Your task to perform on an android device: Clear the cart on bestbuy. Search for lenovo thinkpad on bestbuy, select the first entry, add it to the cart, then select checkout. Image 0: 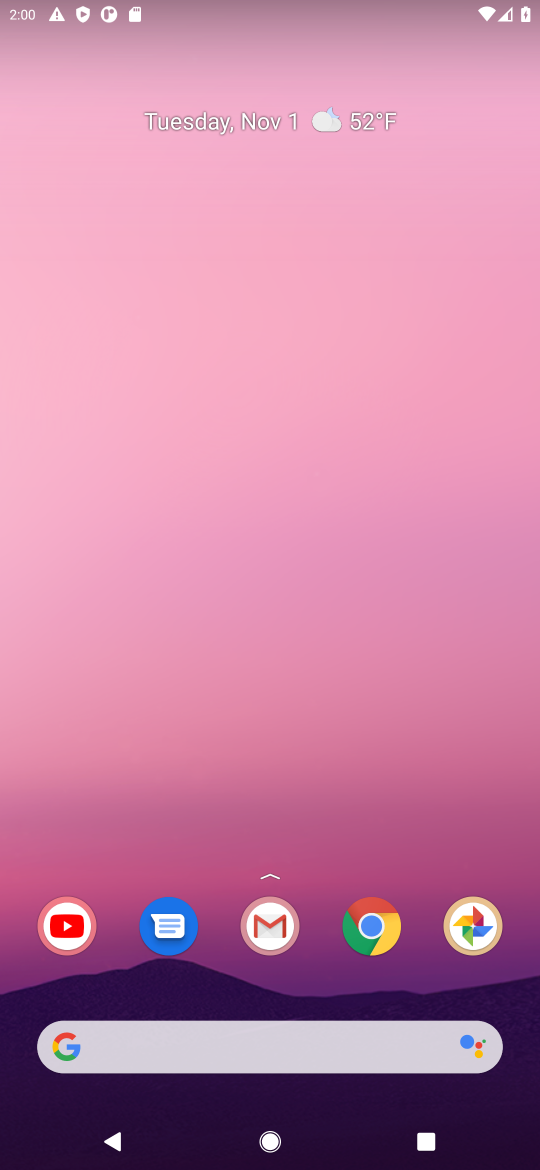
Step 0: click (367, 937)
Your task to perform on an android device: Clear the cart on bestbuy. Search for lenovo thinkpad on bestbuy, select the first entry, add it to the cart, then select checkout. Image 1: 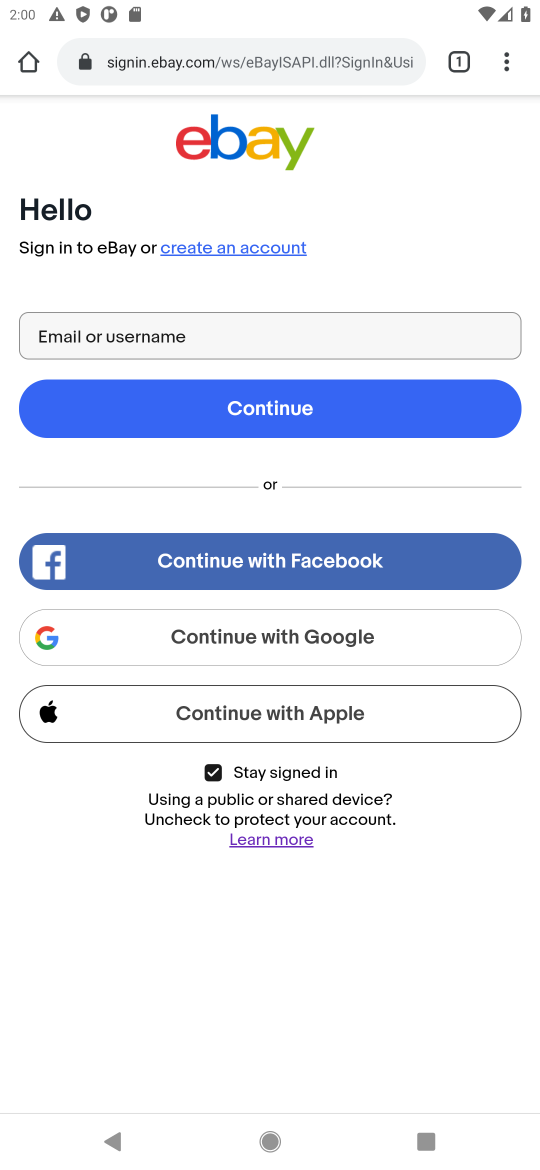
Step 1: click (235, 68)
Your task to perform on an android device: Clear the cart on bestbuy. Search for lenovo thinkpad on bestbuy, select the first entry, add it to the cart, then select checkout. Image 2: 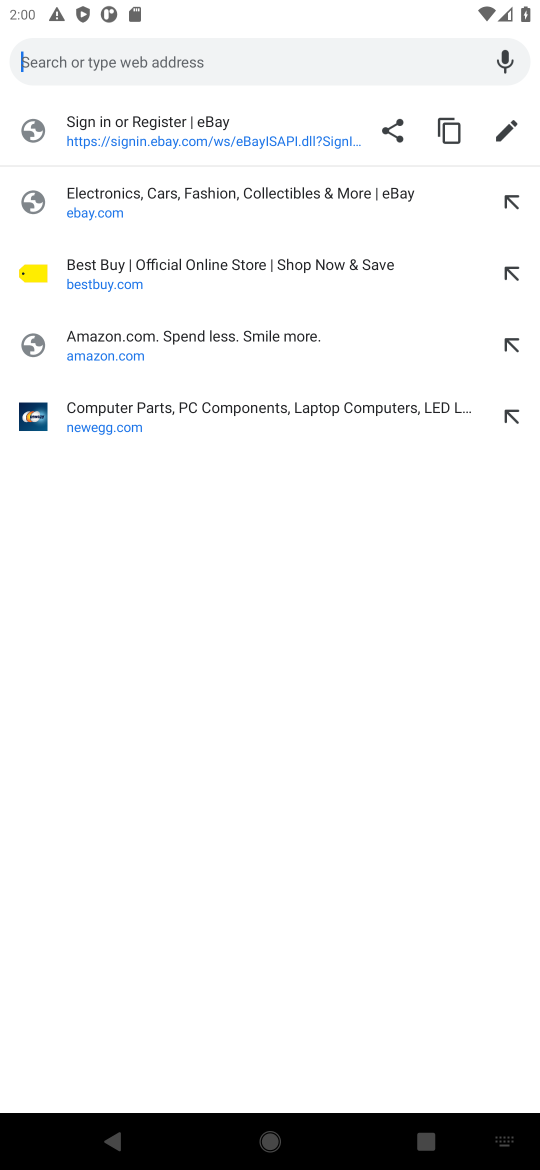
Step 2: type "bestbuy"
Your task to perform on an android device: Clear the cart on bestbuy. Search for lenovo thinkpad on bestbuy, select the first entry, add it to the cart, then select checkout. Image 3: 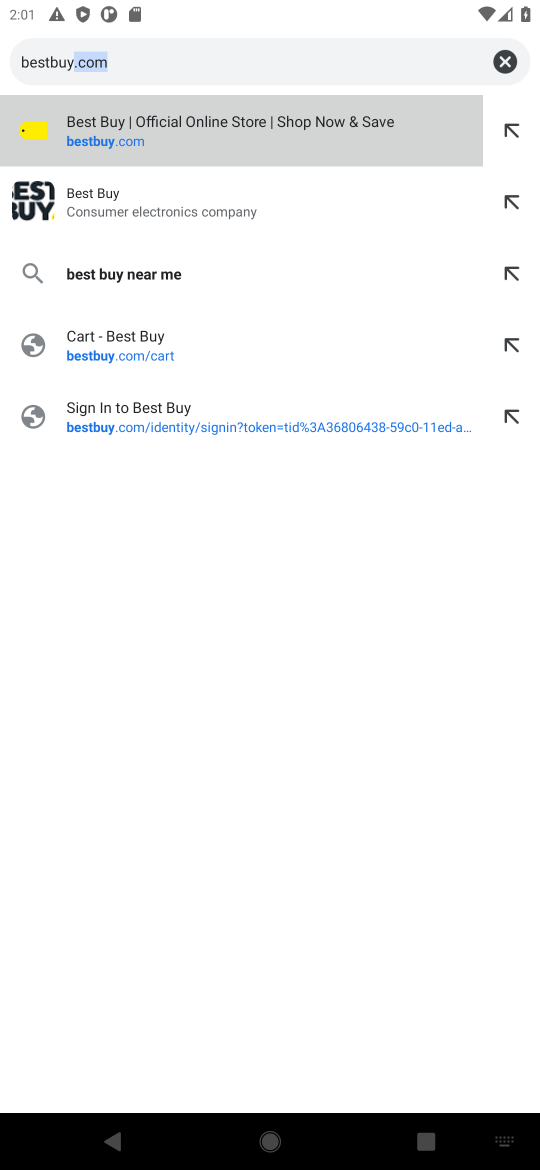
Step 3: press enter
Your task to perform on an android device: Clear the cart on bestbuy. Search for lenovo thinkpad on bestbuy, select the first entry, add it to the cart, then select checkout. Image 4: 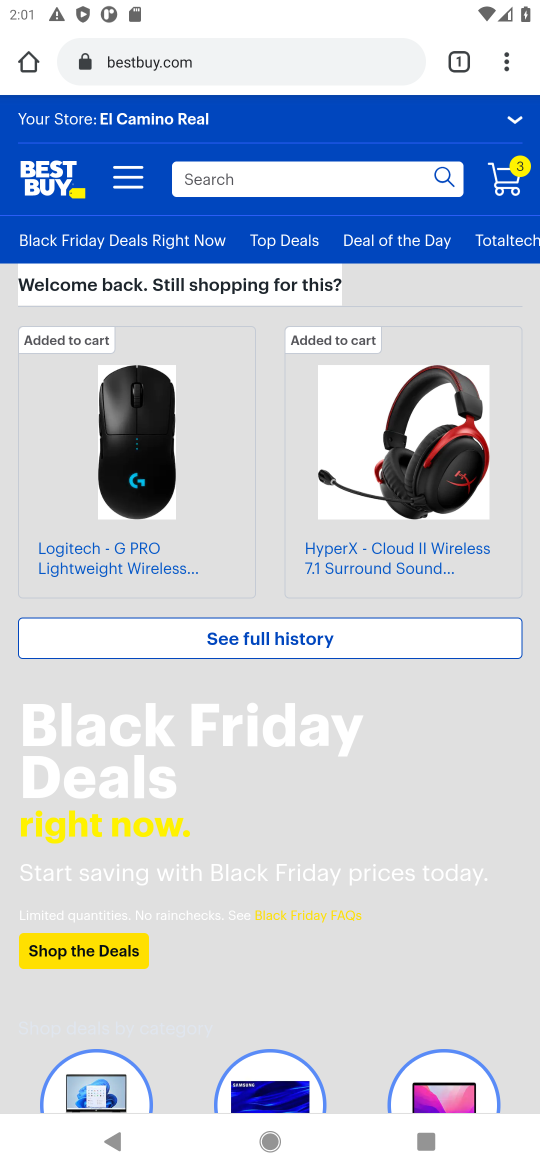
Step 4: click (289, 182)
Your task to perform on an android device: Clear the cart on bestbuy. Search for lenovo thinkpad on bestbuy, select the first entry, add it to the cart, then select checkout. Image 5: 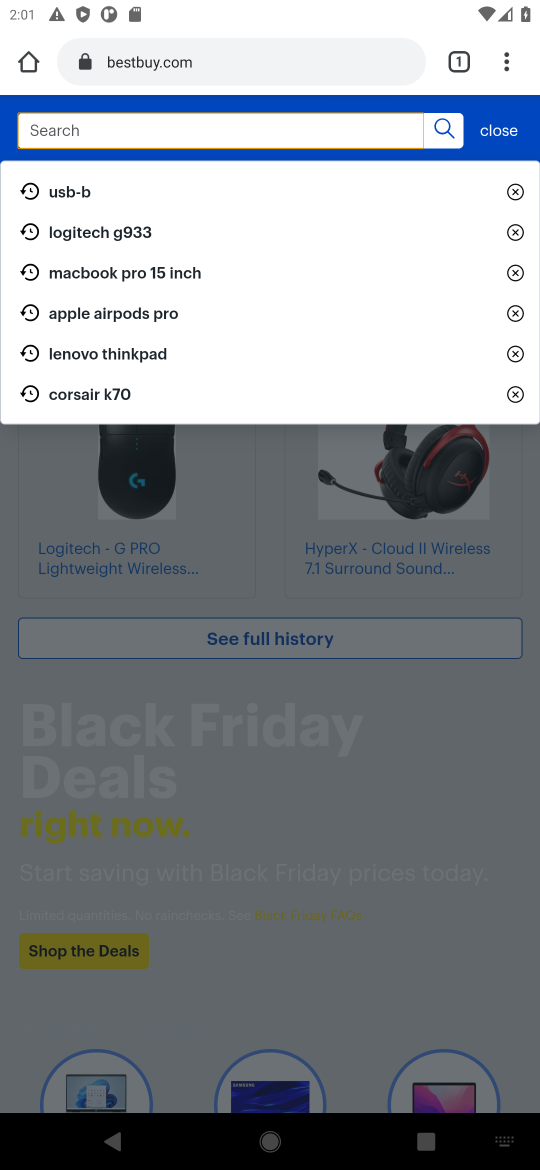
Step 5: click (495, 128)
Your task to perform on an android device: Clear the cart on bestbuy. Search for lenovo thinkpad on bestbuy, select the first entry, add it to the cart, then select checkout. Image 6: 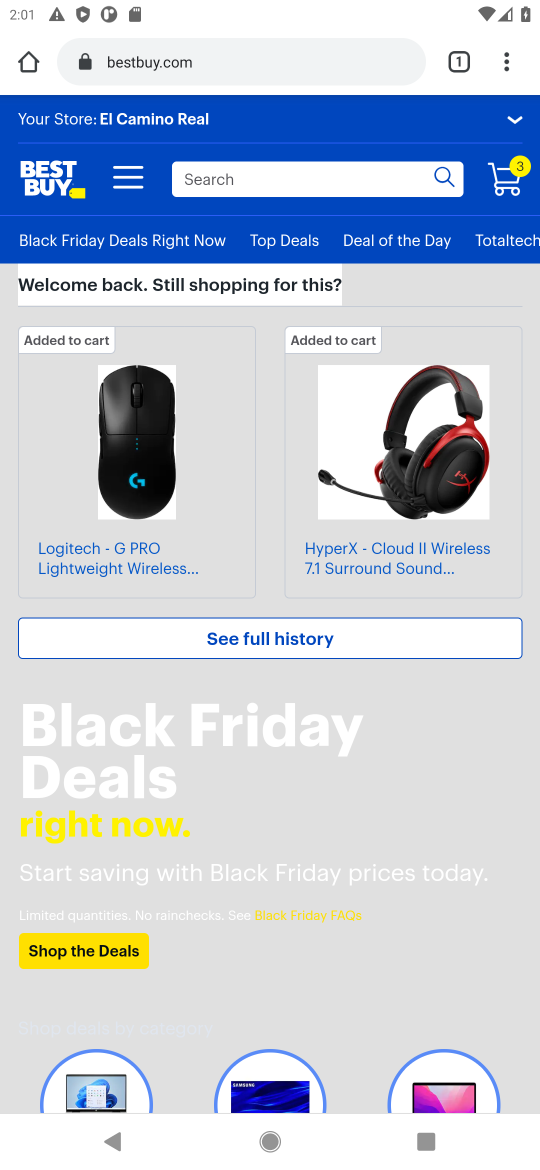
Step 6: click (511, 175)
Your task to perform on an android device: Clear the cart on bestbuy. Search for lenovo thinkpad on bestbuy, select the first entry, add it to the cart, then select checkout. Image 7: 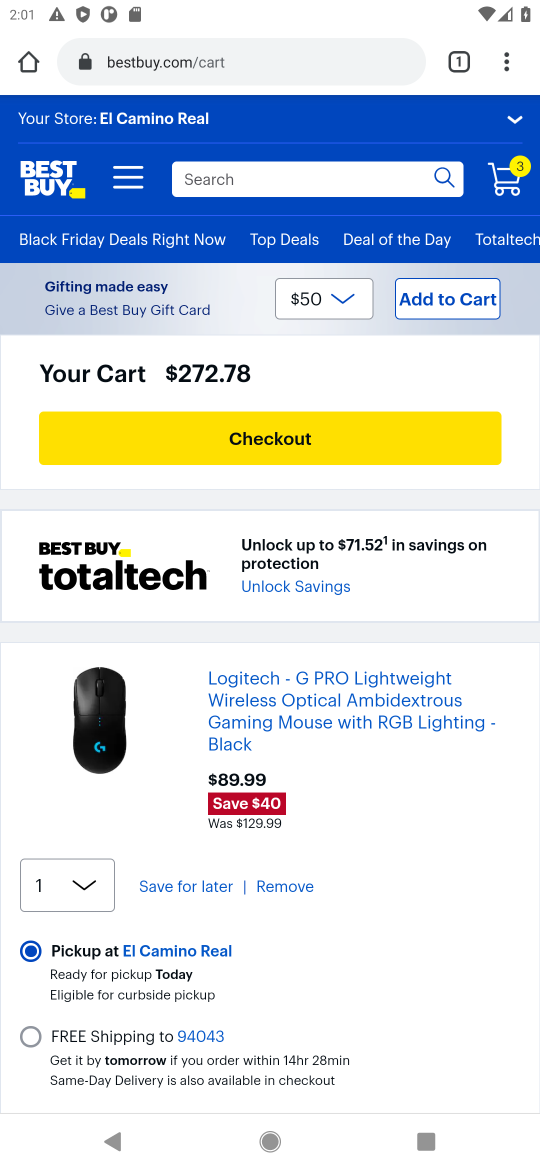
Step 7: click (285, 886)
Your task to perform on an android device: Clear the cart on bestbuy. Search for lenovo thinkpad on bestbuy, select the first entry, add it to the cart, then select checkout. Image 8: 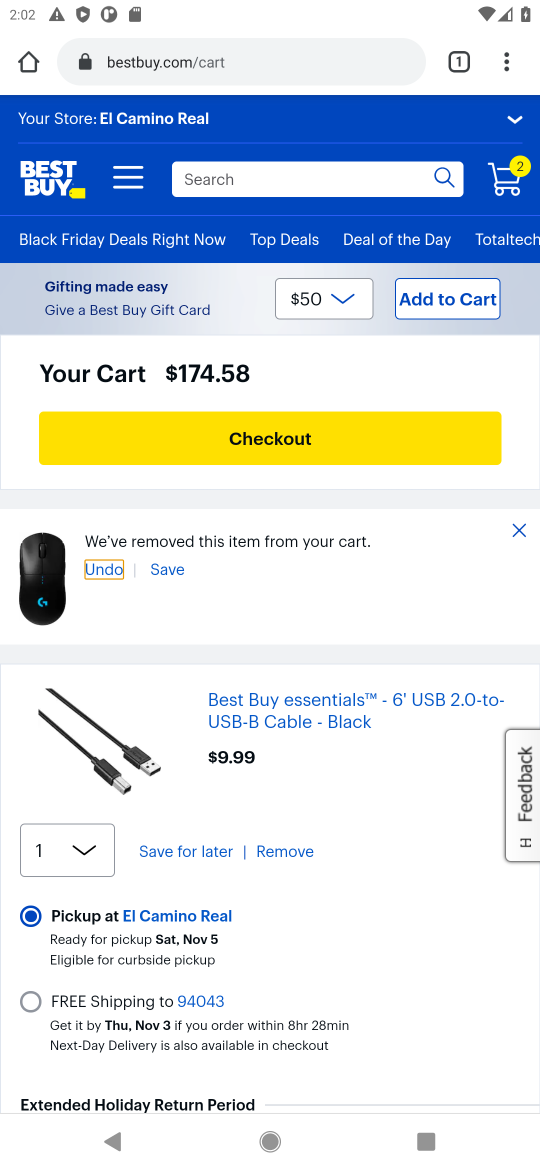
Step 8: click (269, 849)
Your task to perform on an android device: Clear the cart on bestbuy. Search for lenovo thinkpad on bestbuy, select the first entry, add it to the cart, then select checkout. Image 9: 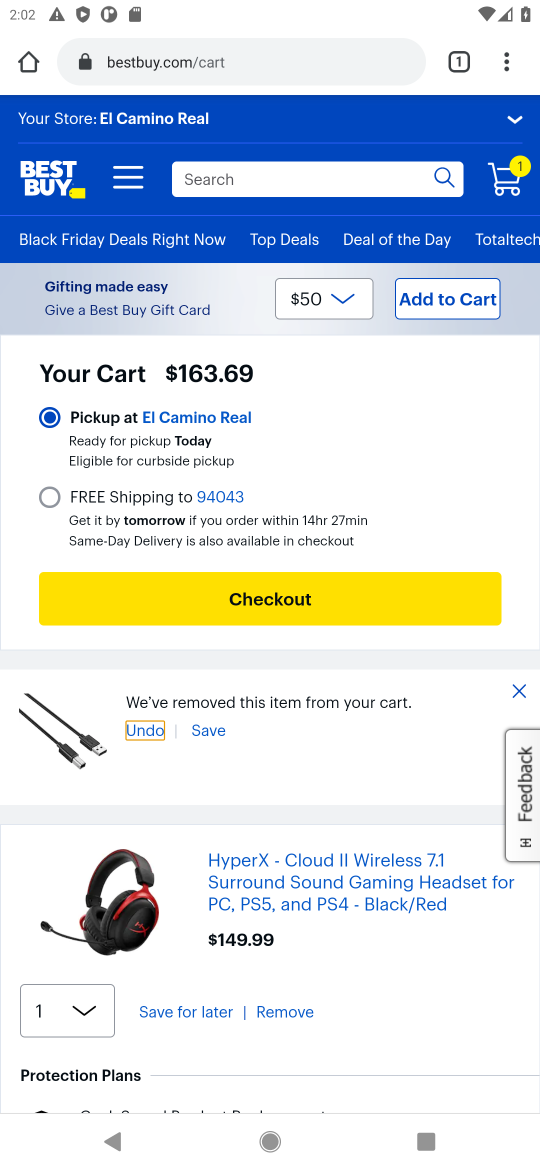
Step 9: click (277, 1007)
Your task to perform on an android device: Clear the cart on bestbuy. Search for lenovo thinkpad on bestbuy, select the first entry, add it to the cart, then select checkout. Image 10: 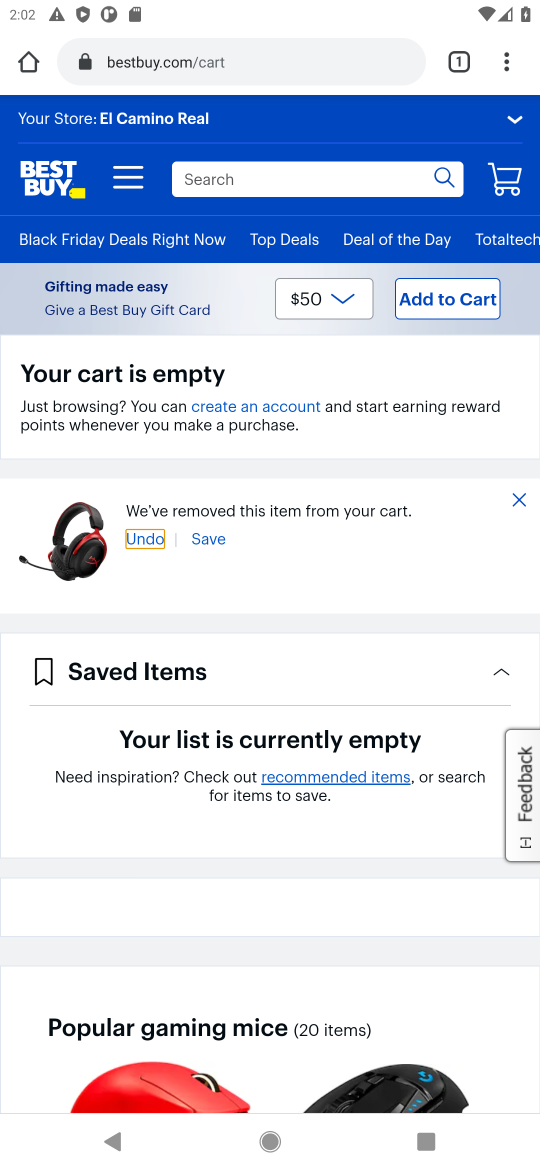
Step 10: click (321, 182)
Your task to perform on an android device: Clear the cart on bestbuy. Search for lenovo thinkpad on bestbuy, select the first entry, add it to the cart, then select checkout. Image 11: 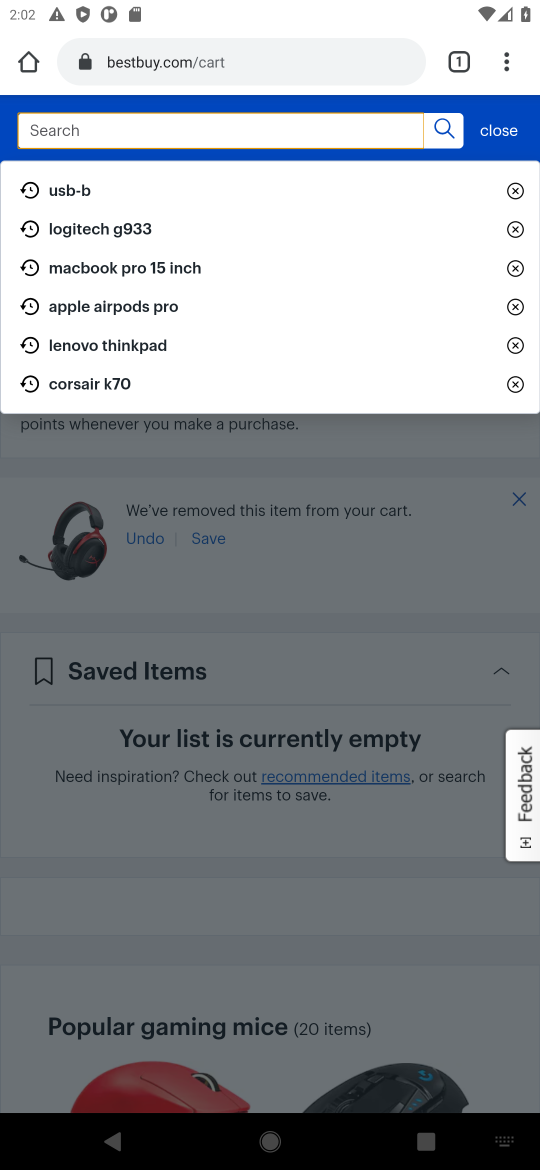
Step 11: type "lenovo thinkpad"
Your task to perform on an android device: Clear the cart on bestbuy. Search for lenovo thinkpad on bestbuy, select the first entry, add it to the cart, then select checkout. Image 12: 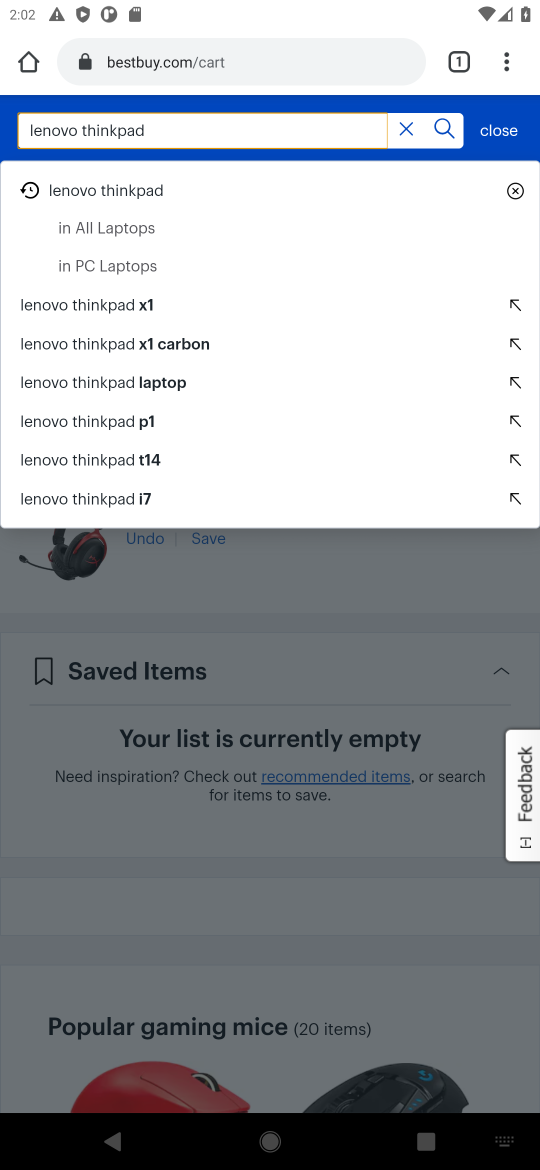
Step 12: click (127, 194)
Your task to perform on an android device: Clear the cart on bestbuy. Search for lenovo thinkpad on bestbuy, select the first entry, add it to the cart, then select checkout. Image 13: 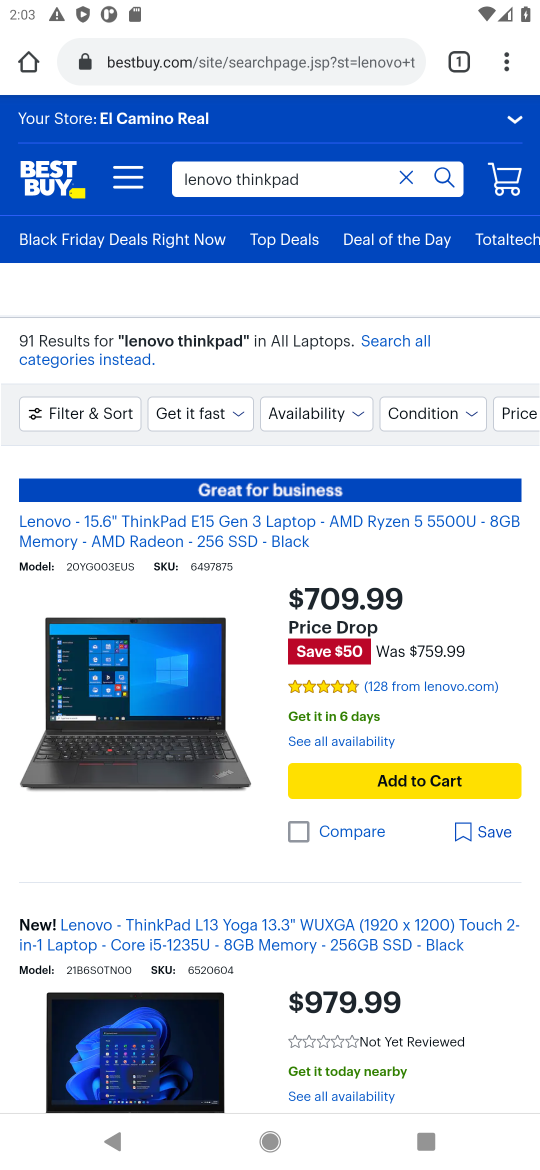
Step 13: click (148, 713)
Your task to perform on an android device: Clear the cart on bestbuy. Search for lenovo thinkpad on bestbuy, select the first entry, add it to the cart, then select checkout. Image 14: 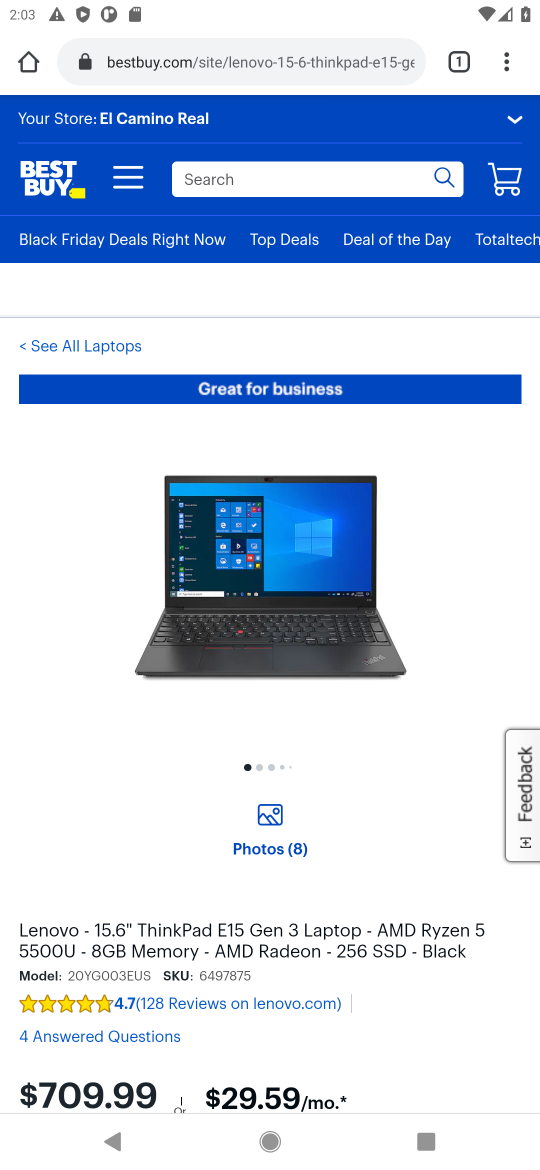
Step 14: drag from (330, 1053) to (288, 286)
Your task to perform on an android device: Clear the cart on bestbuy. Search for lenovo thinkpad on bestbuy, select the first entry, add it to the cart, then select checkout. Image 15: 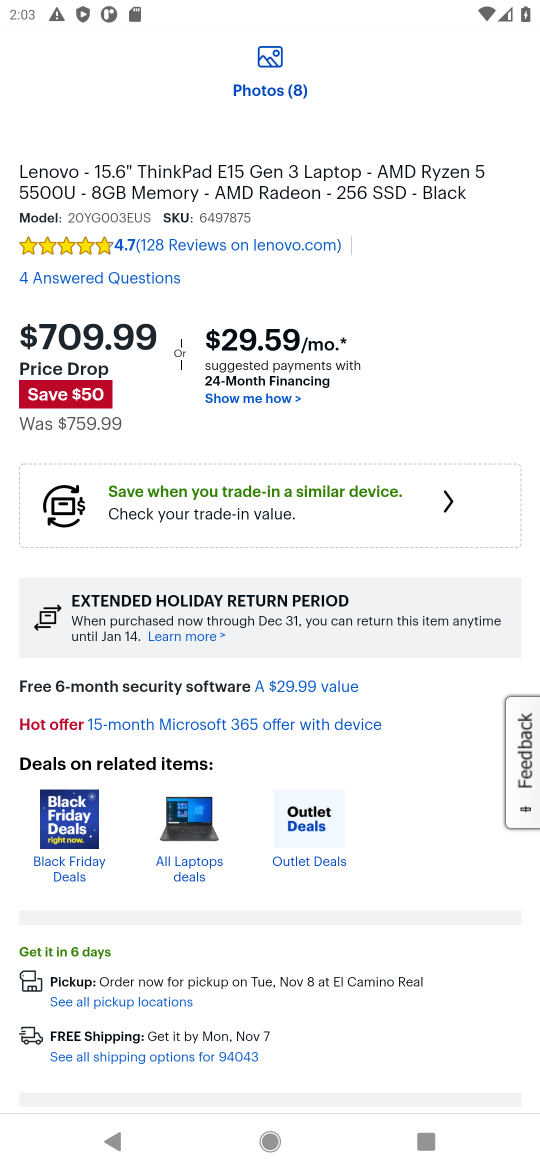
Step 15: drag from (377, 848) to (332, 344)
Your task to perform on an android device: Clear the cart on bestbuy. Search for lenovo thinkpad on bestbuy, select the first entry, add it to the cart, then select checkout. Image 16: 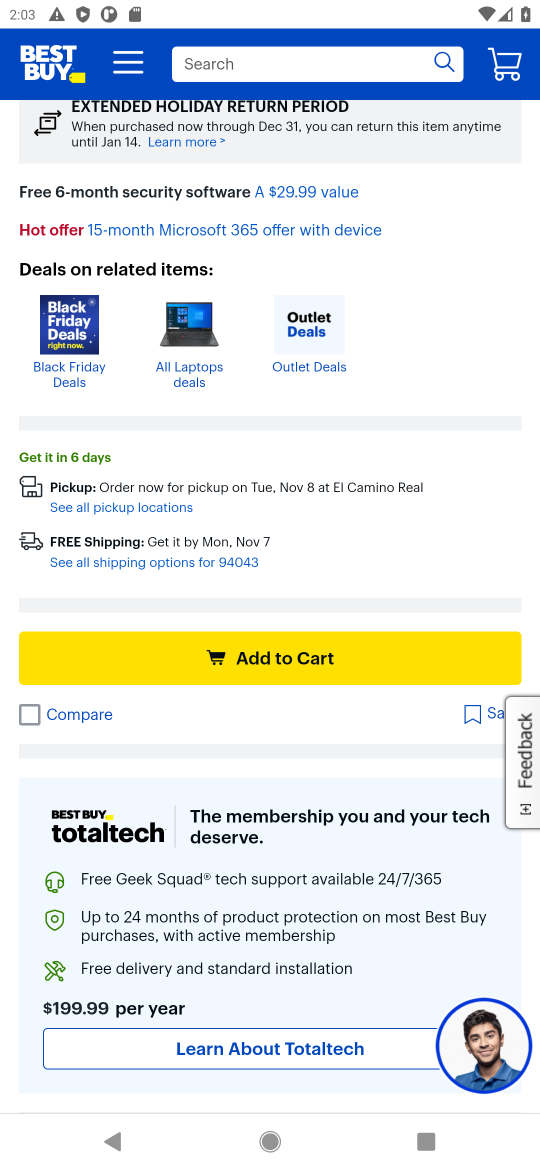
Step 16: click (277, 658)
Your task to perform on an android device: Clear the cart on bestbuy. Search for lenovo thinkpad on bestbuy, select the first entry, add it to the cart, then select checkout. Image 17: 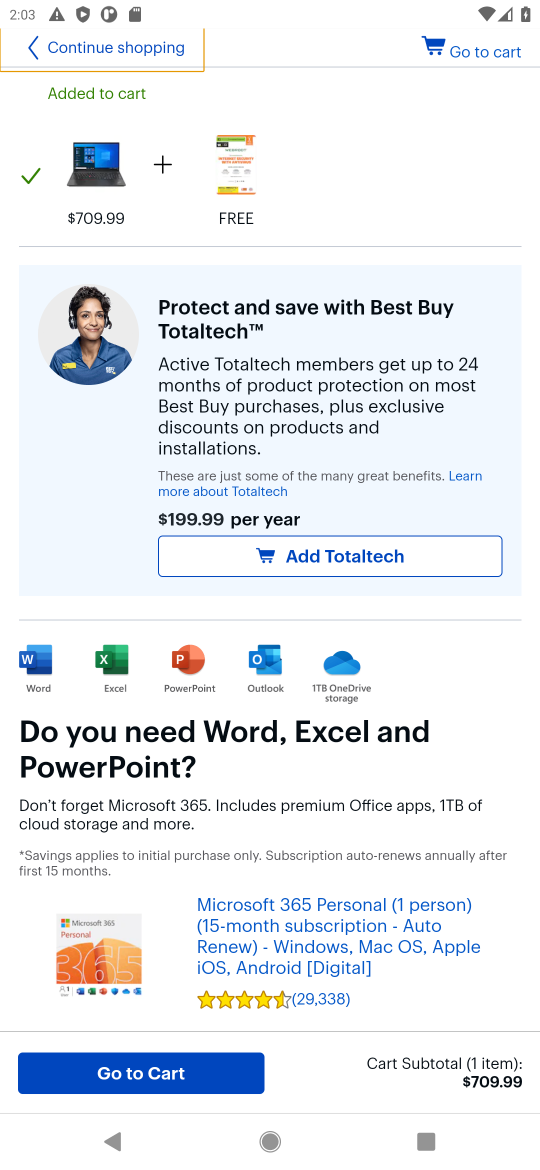
Step 17: click (162, 1072)
Your task to perform on an android device: Clear the cart on bestbuy. Search for lenovo thinkpad on bestbuy, select the first entry, add it to the cart, then select checkout. Image 18: 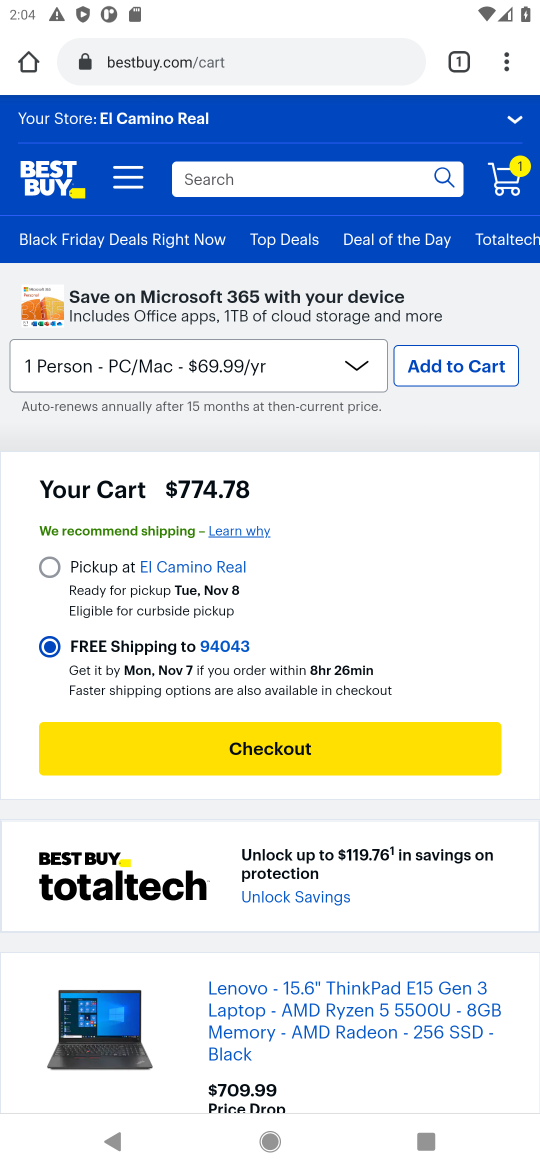
Step 18: click (276, 750)
Your task to perform on an android device: Clear the cart on bestbuy. Search for lenovo thinkpad on bestbuy, select the first entry, add it to the cart, then select checkout. Image 19: 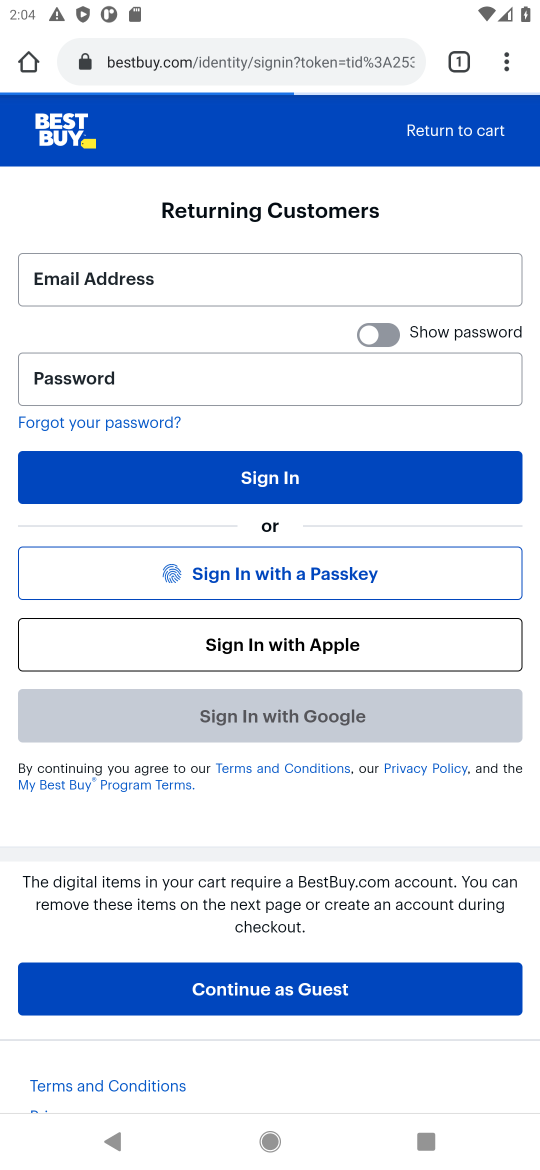
Step 19: task complete